Your task to perform on an android device: Open Google Maps and go to "Timeline" Image 0: 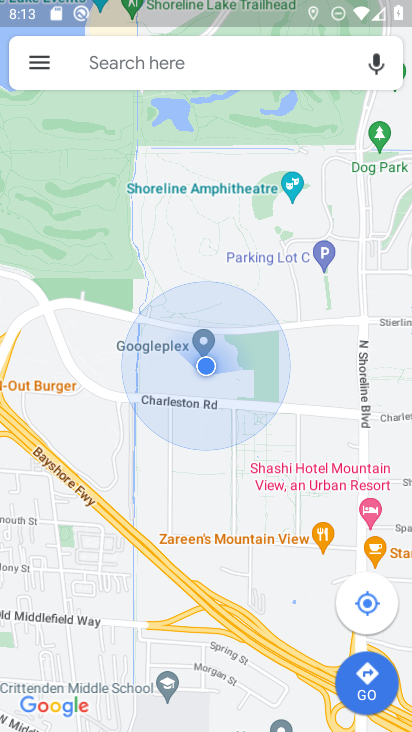
Step 0: click (31, 62)
Your task to perform on an android device: Open Google Maps and go to "Timeline" Image 1: 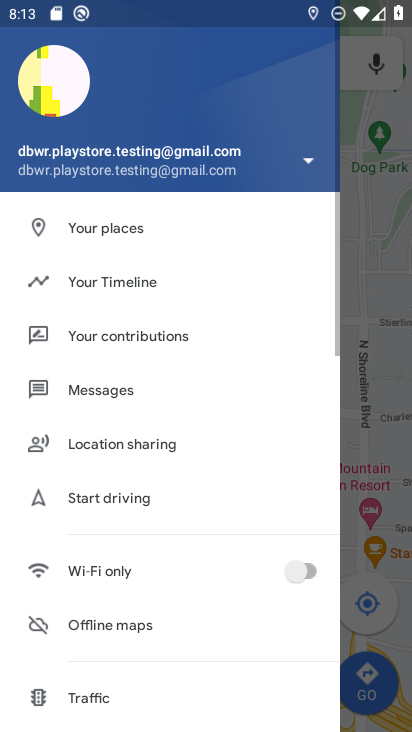
Step 1: click (128, 285)
Your task to perform on an android device: Open Google Maps and go to "Timeline" Image 2: 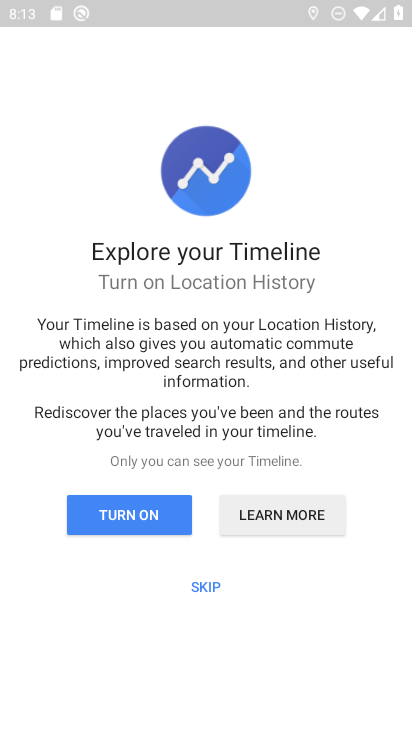
Step 2: click (188, 576)
Your task to perform on an android device: Open Google Maps and go to "Timeline" Image 3: 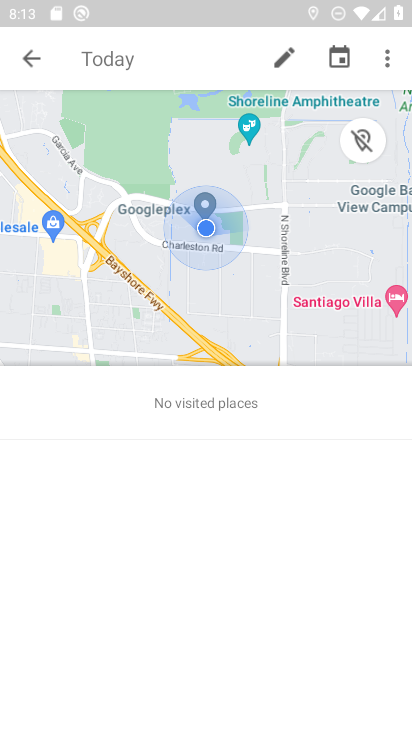
Step 3: task complete